Your task to perform on an android device: set the stopwatch Image 0: 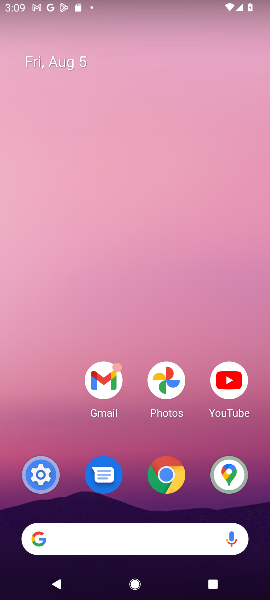
Step 0: press home button
Your task to perform on an android device: set the stopwatch Image 1: 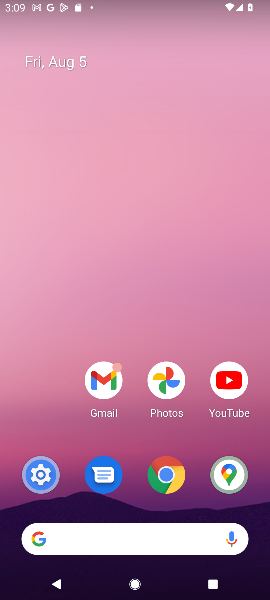
Step 1: drag from (44, 428) to (48, 113)
Your task to perform on an android device: set the stopwatch Image 2: 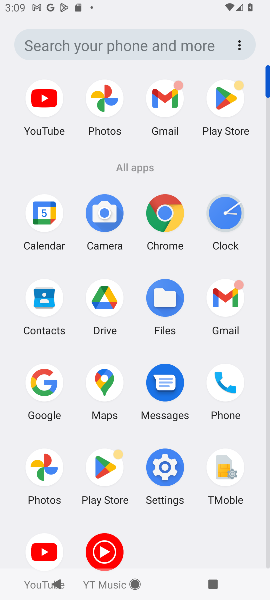
Step 2: click (223, 214)
Your task to perform on an android device: set the stopwatch Image 3: 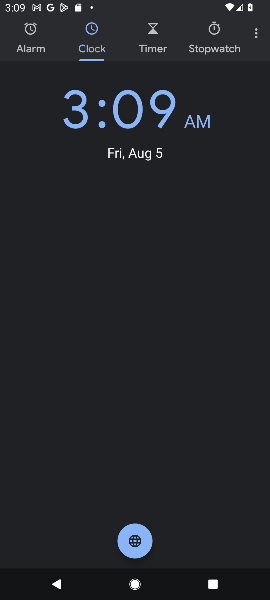
Step 3: click (216, 33)
Your task to perform on an android device: set the stopwatch Image 4: 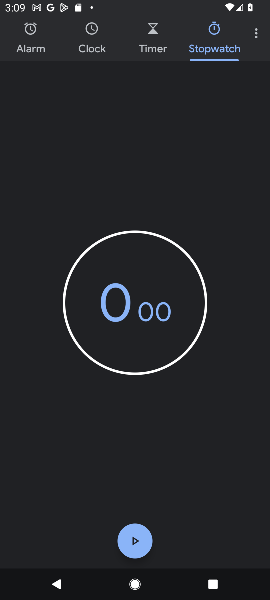
Step 4: click (136, 533)
Your task to perform on an android device: set the stopwatch Image 5: 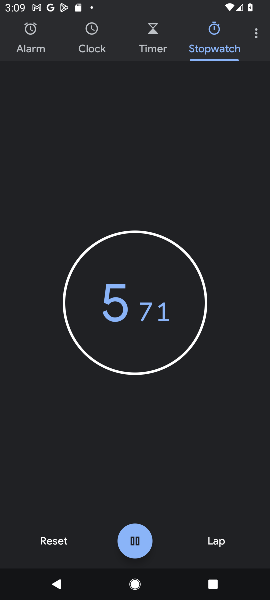
Step 5: task complete